Your task to perform on an android device: Search for good Korean restaurants Image 0: 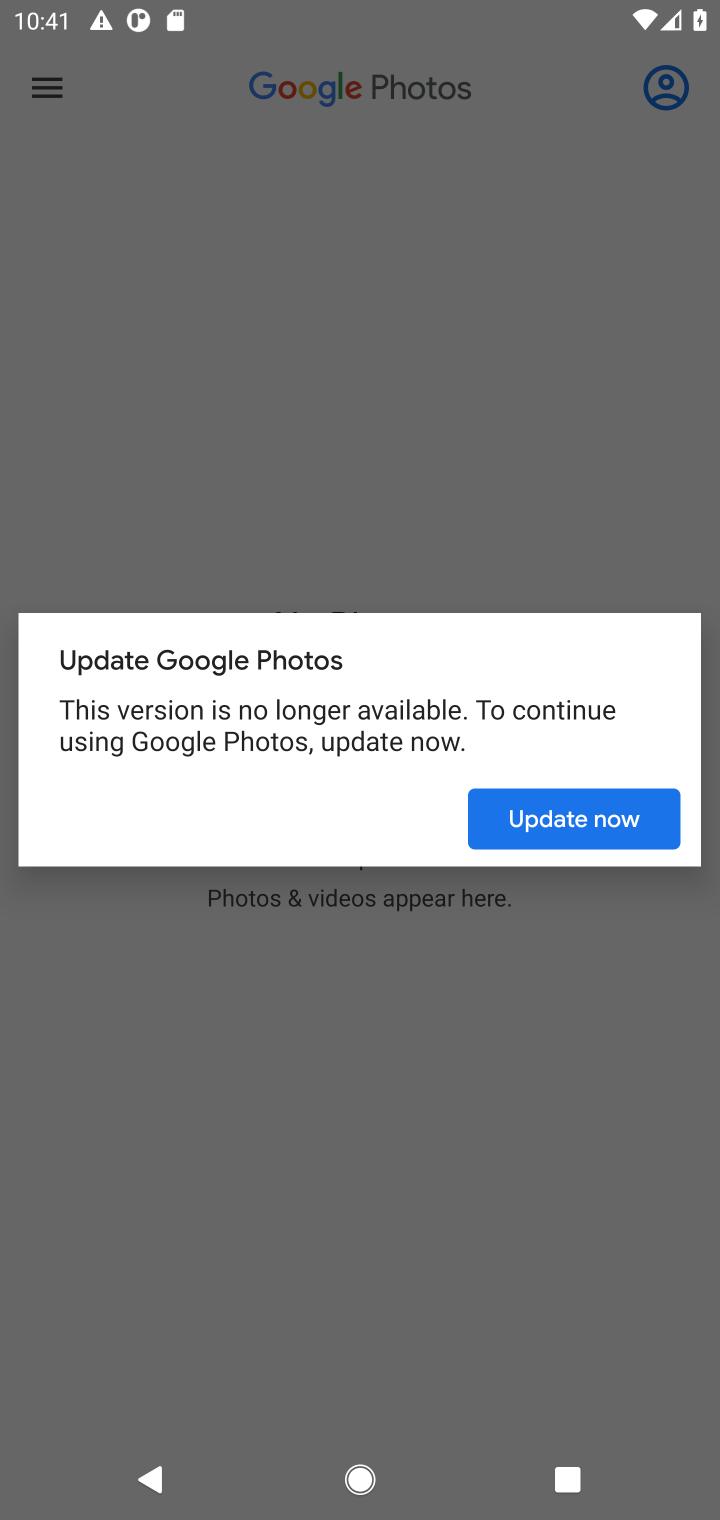
Step 0: press home button
Your task to perform on an android device: Search for good Korean restaurants Image 1: 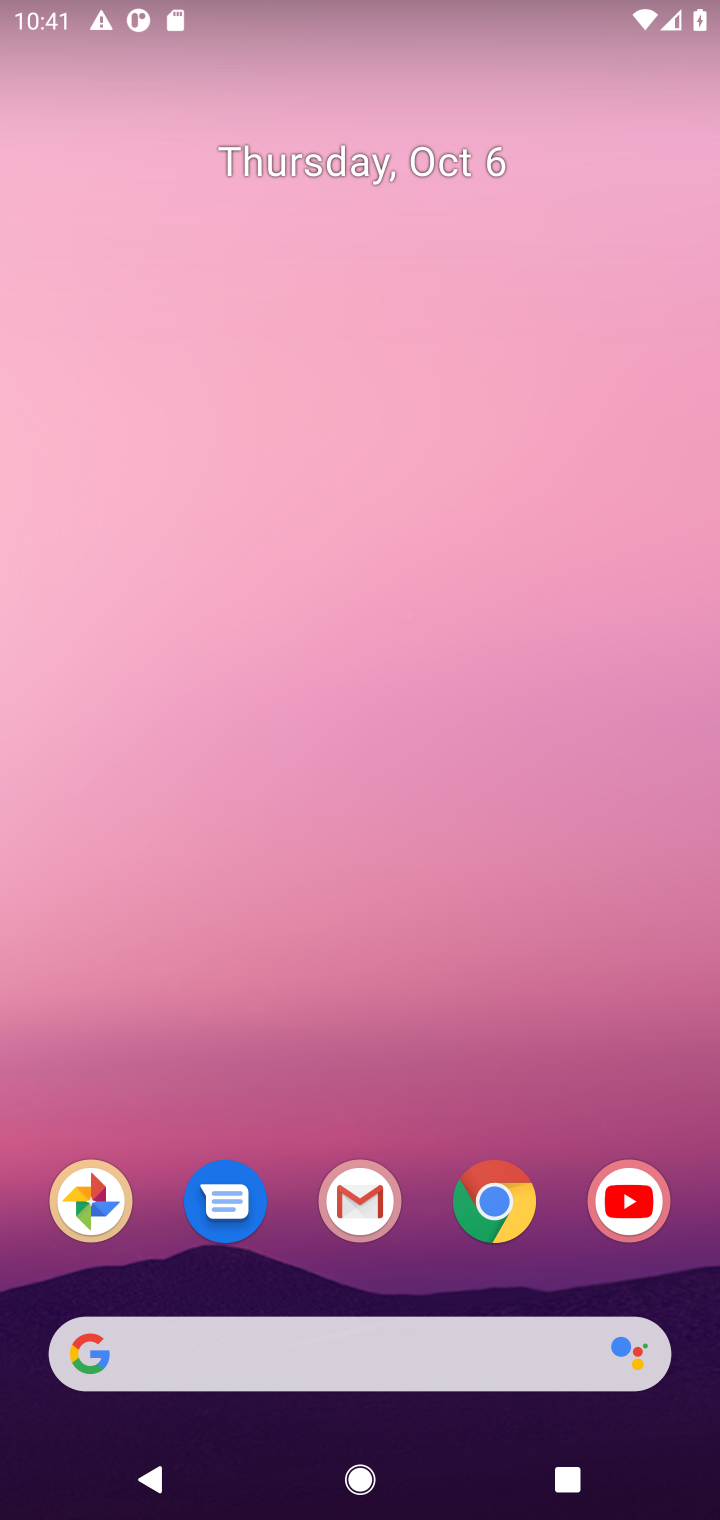
Step 1: drag from (230, 1225) to (386, 342)
Your task to perform on an android device: Search for good Korean restaurants Image 2: 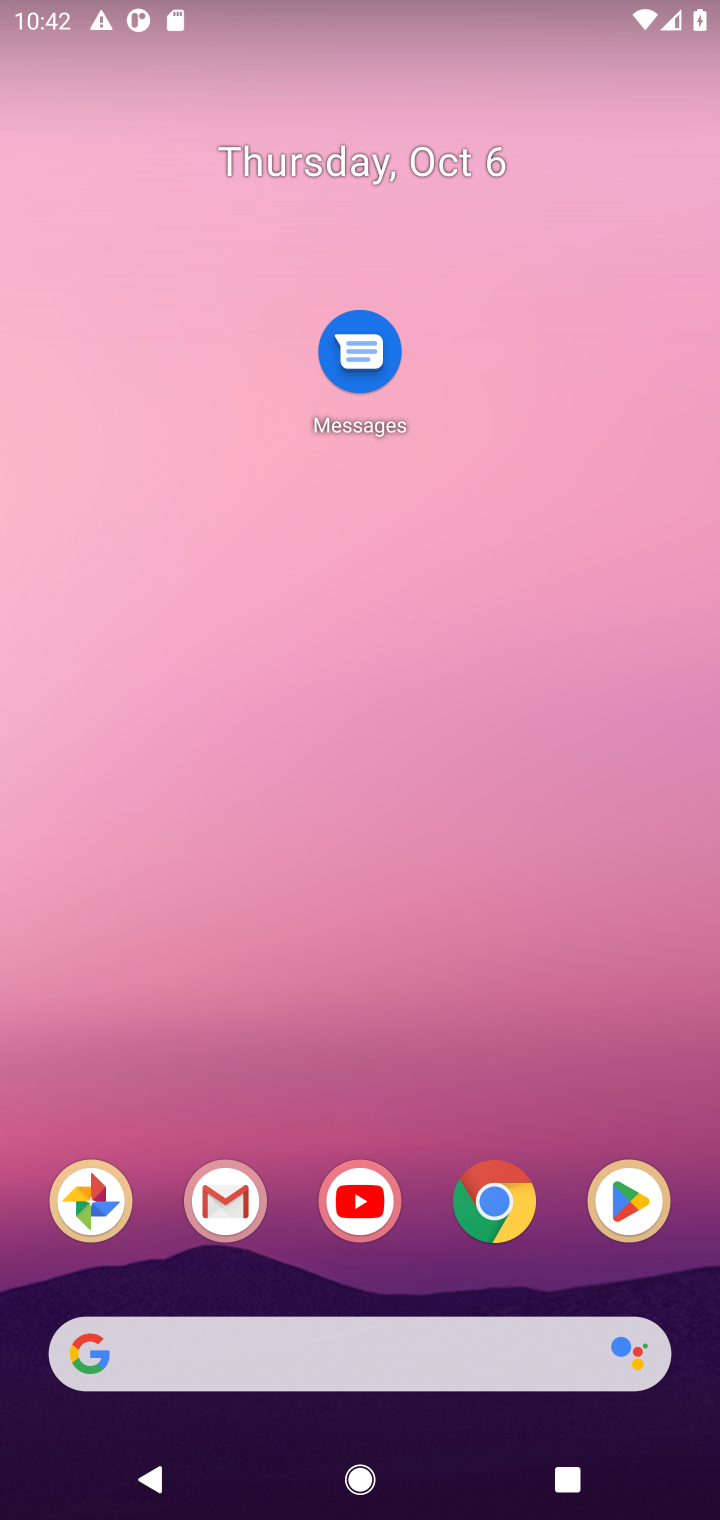
Step 2: drag from (214, 1048) to (259, 314)
Your task to perform on an android device: Search for good Korean restaurants Image 3: 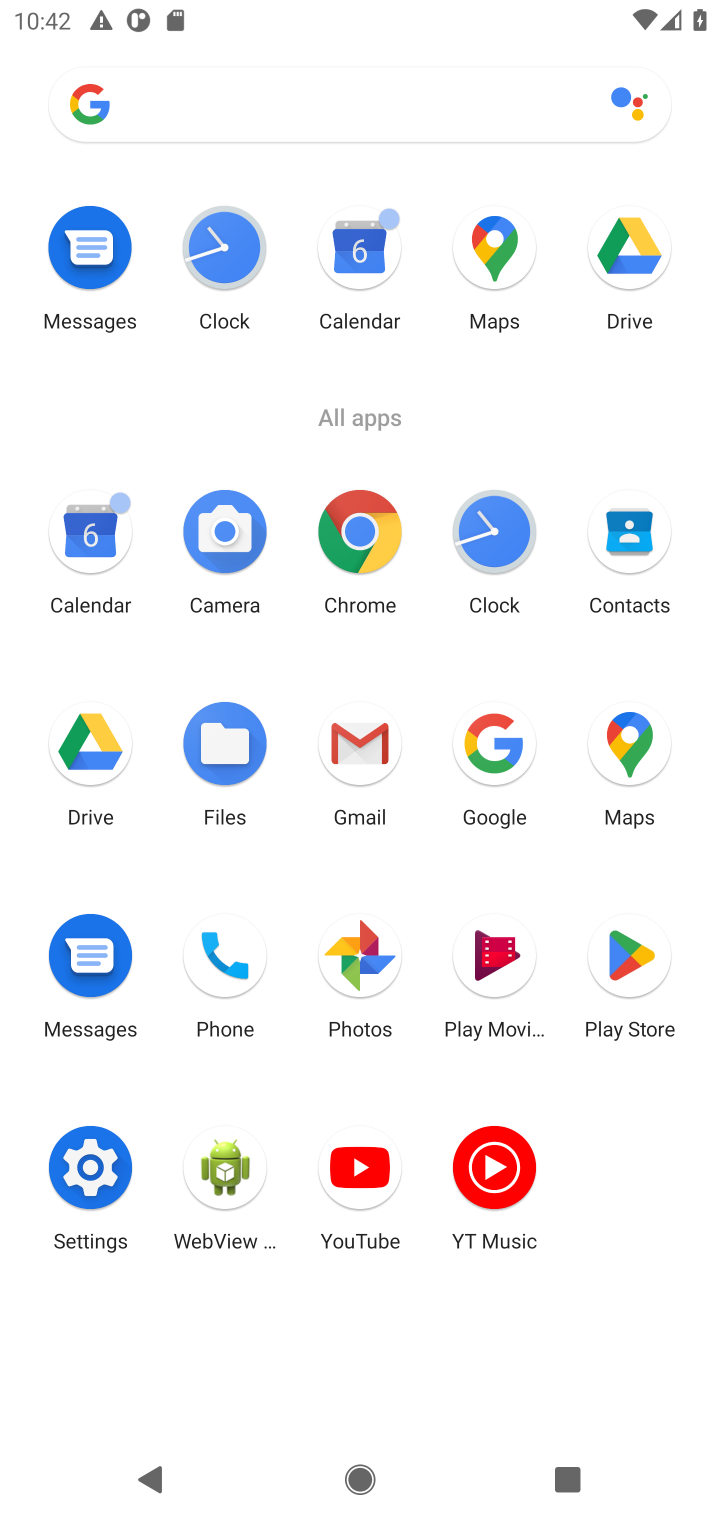
Step 3: click (383, 550)
Your task to perform on an android device: Search for good Korean restaurants Image 4: 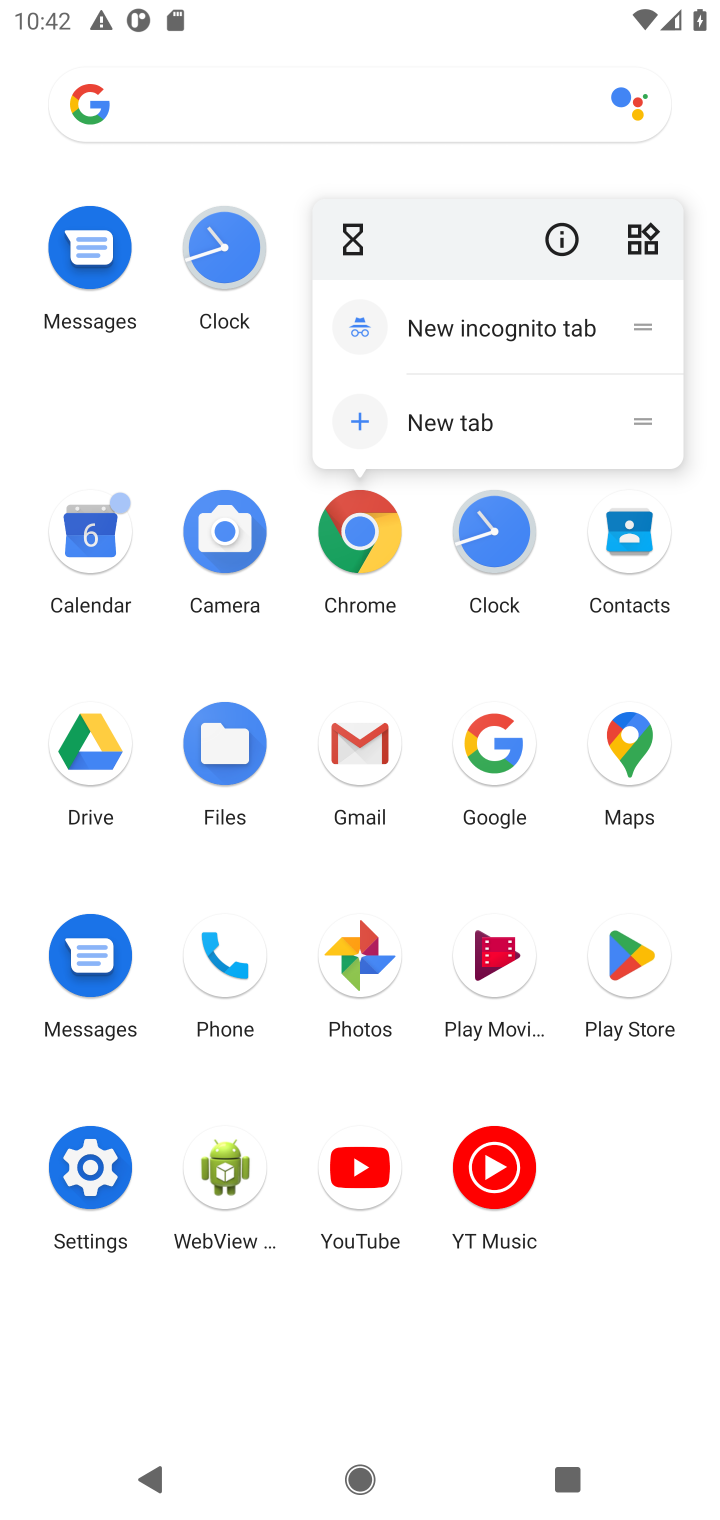
Step 4: click (377, 552)
Your task to perform on an android device: Search for good Korean restaurants Image 5: 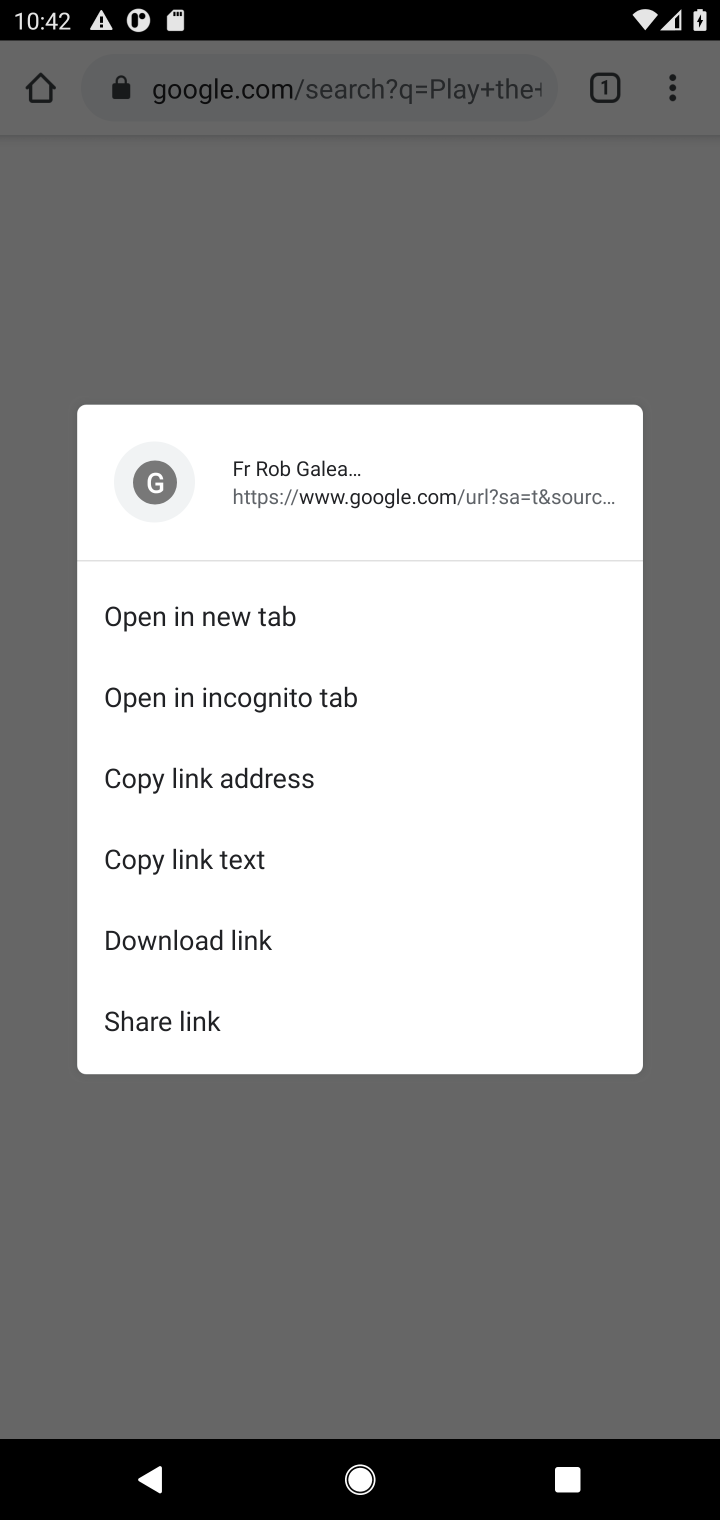
Step 5: click (317, 168)
Your task to perform on an android device: Search for good Korean restaurants Image 6: 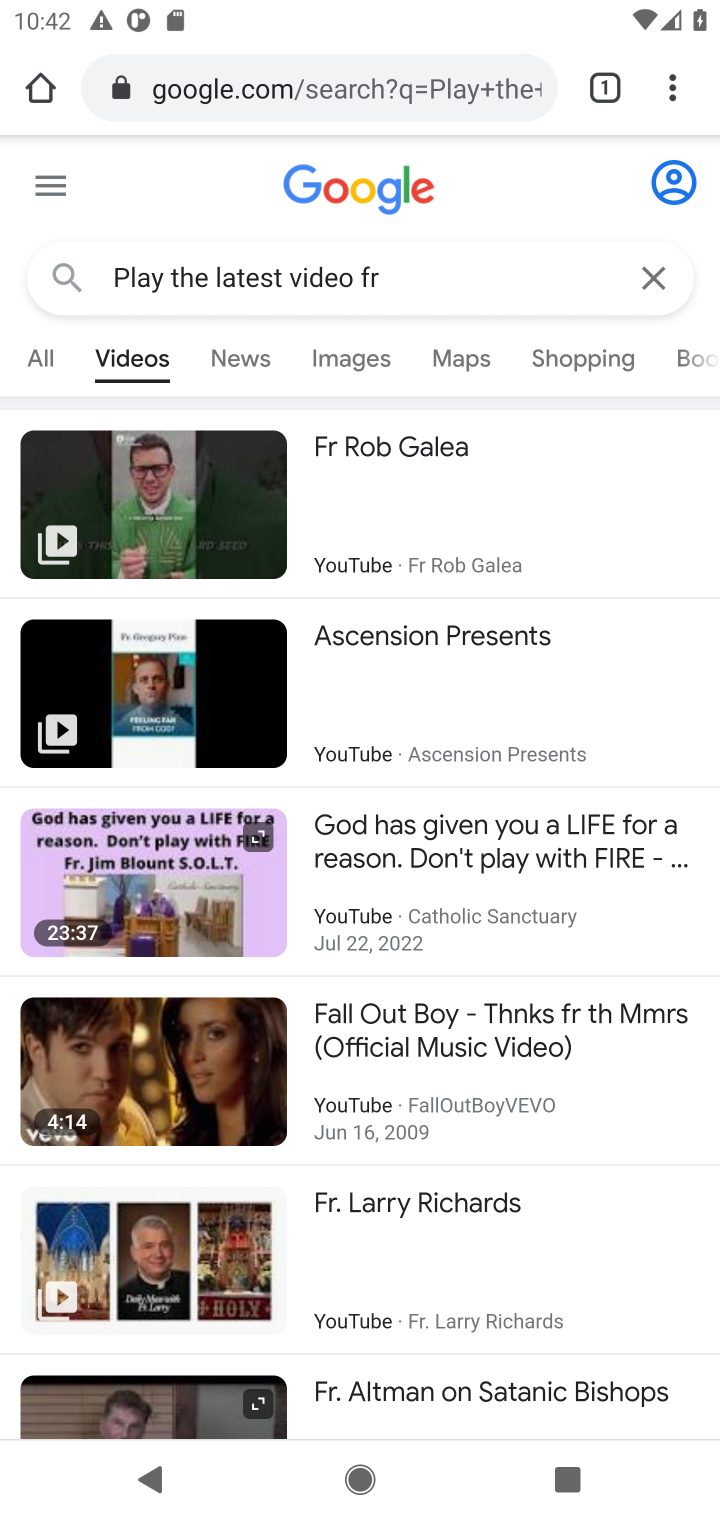
Step 6: click (290, 71)
Your task to perform on an android device: Search for good Korean restaurants Image 7: 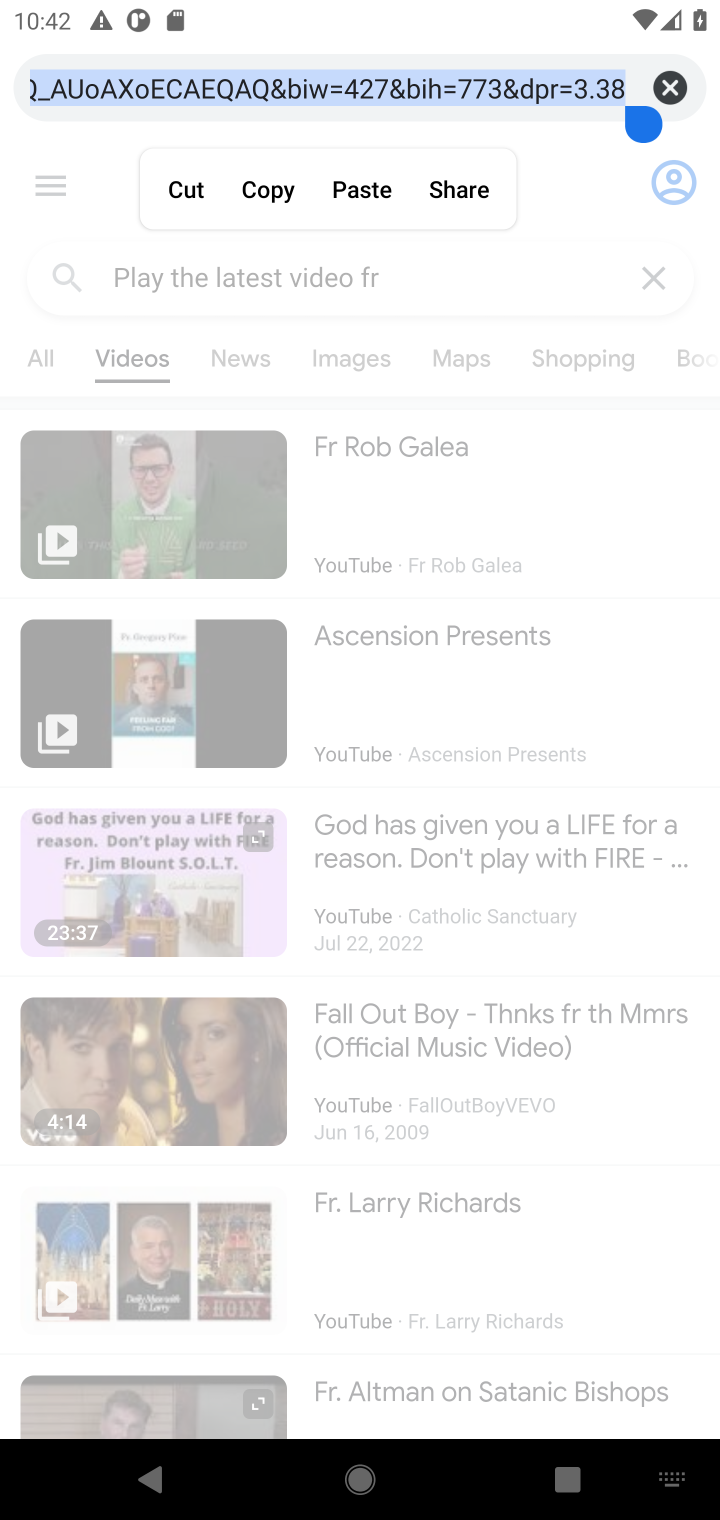
Step 7: click (667, 96)
Your task to perform on an android device: Search for good Korean restaurants Image 8: 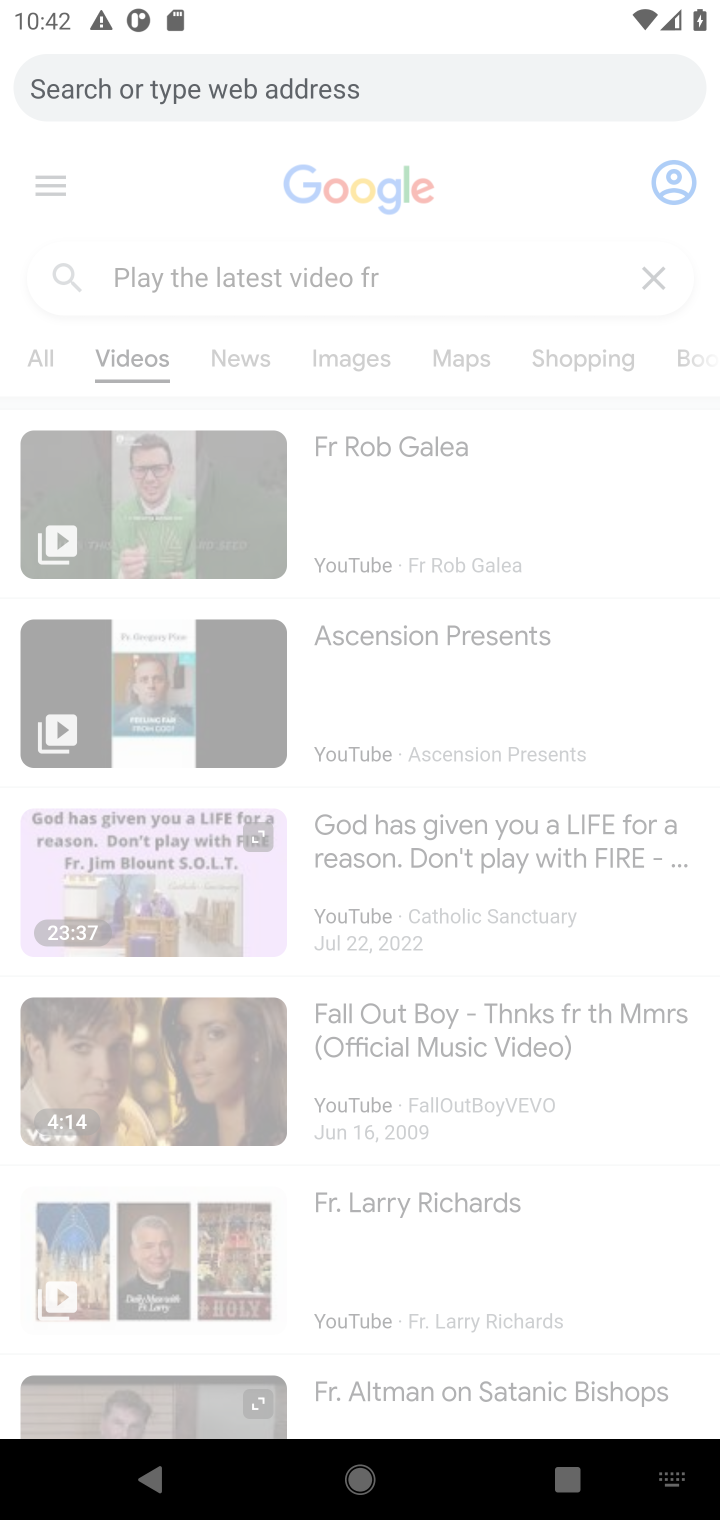
Step 8: type "good Korean restaurants"
Your task to perform on an android device: Search for good Korean restaurants Image 9: 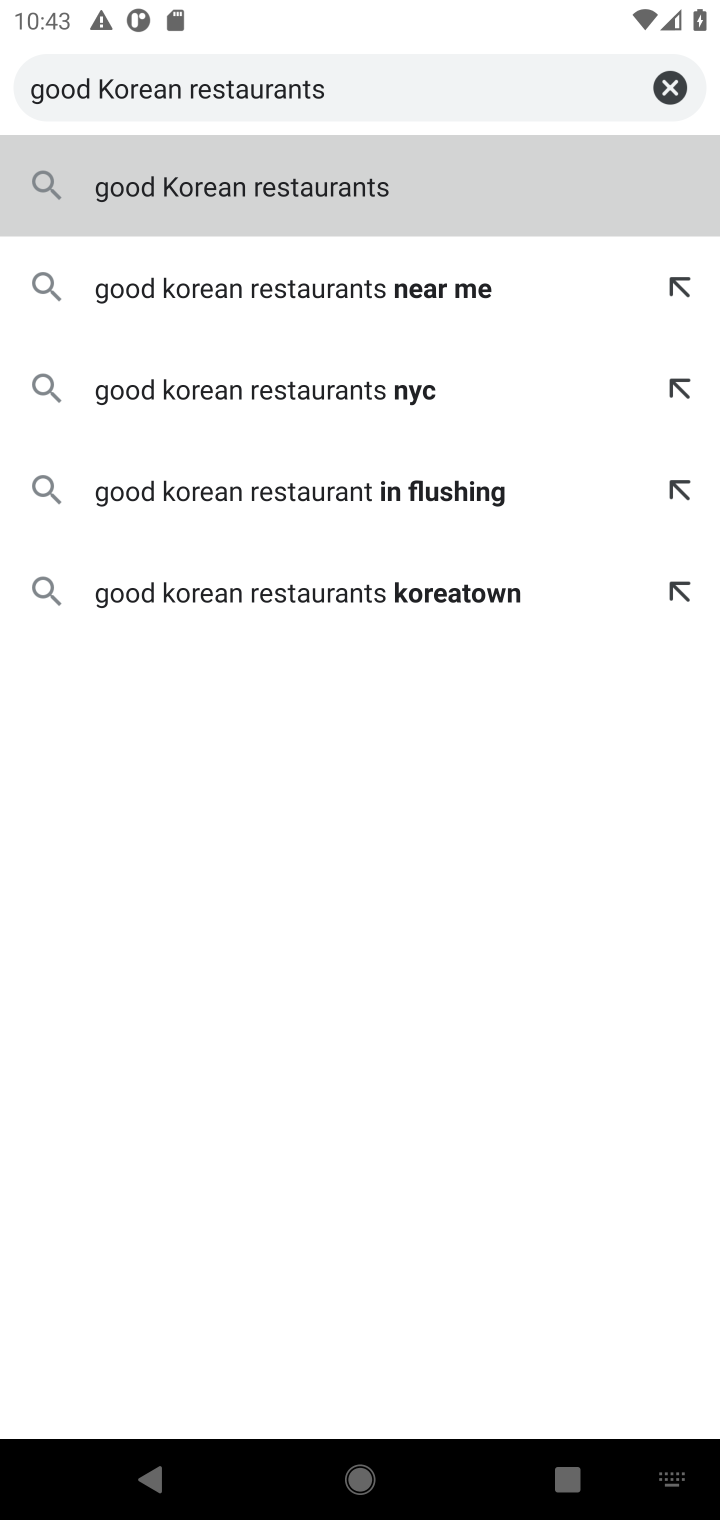
Step 9: press enter
Your task to perform on an android device: Search for good Korean restaurants Image 10: 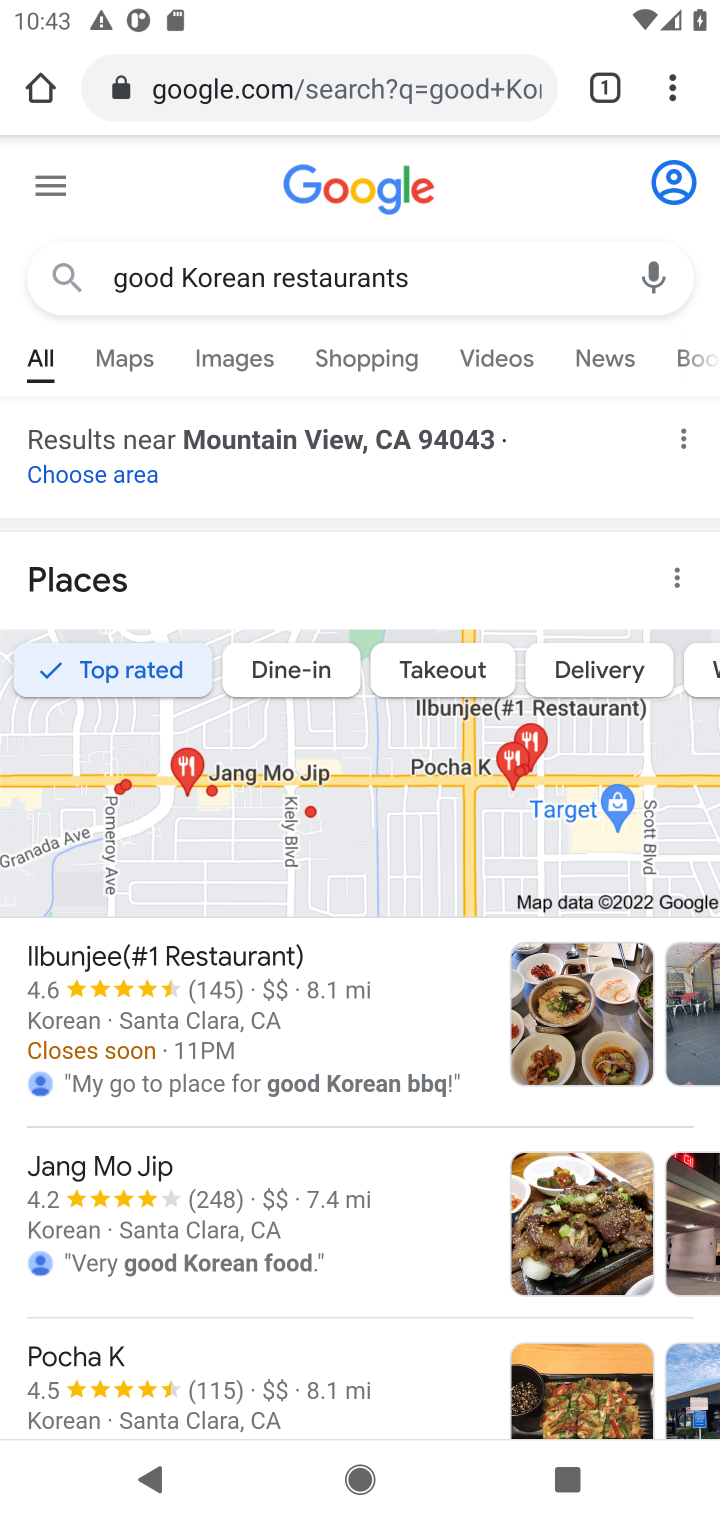
Step 10: task complete